Your task to perform on an android device: Open display settings Image 0: 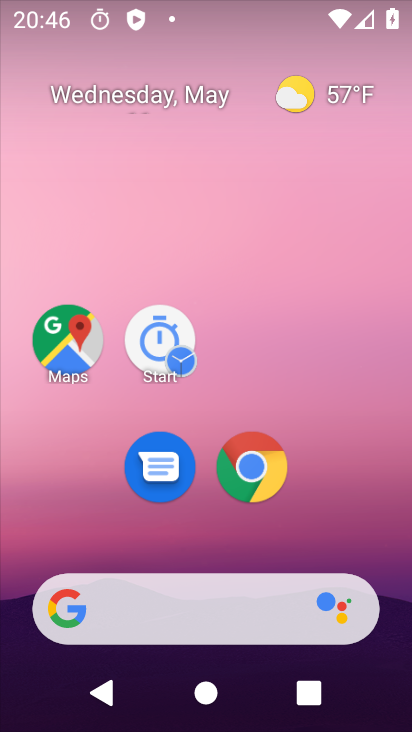
Step 0: drag from (365, 668) to (112, 0)
Your task to perform on an android device: Open display settings Image 1: 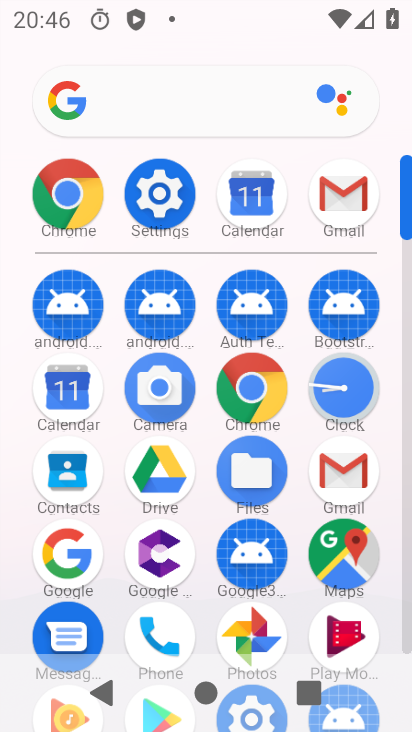
Step 1: click (171, 187)
Your task to perform on an android device: Open display settings Image 2: 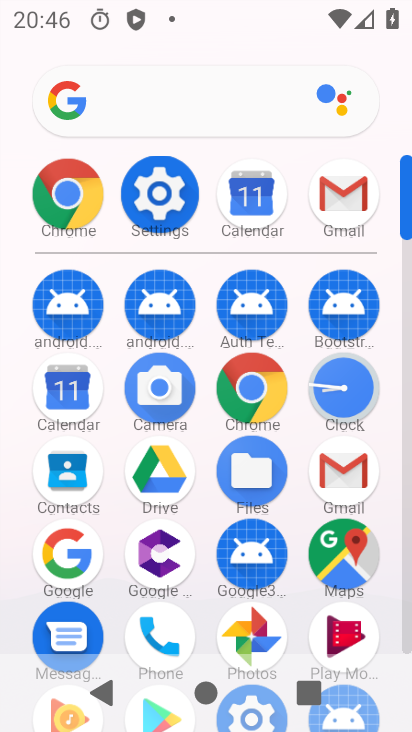
Step 2: click (168, 190)
Your task to perform on an android device: Open display settings Image 3: 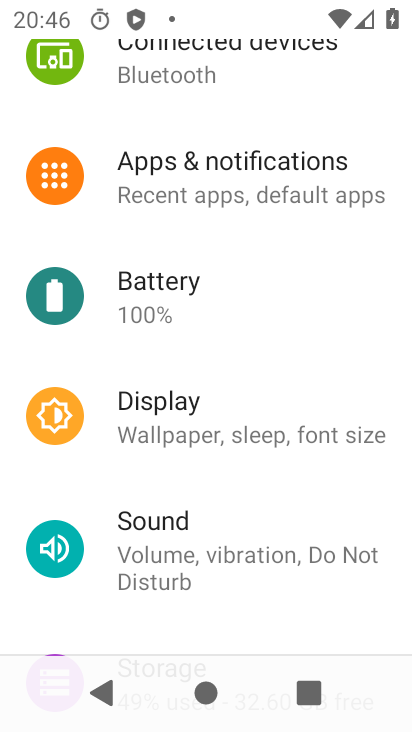
Step 3: click (168, 190)
Your task to perform on an android device: Open display settings Image 4: 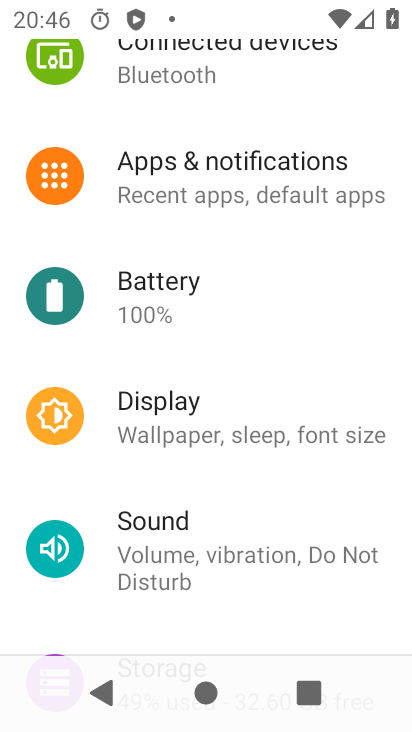
Step 4: click (168, 191)
Your task to perform on an android device: Open display settings Image 5: 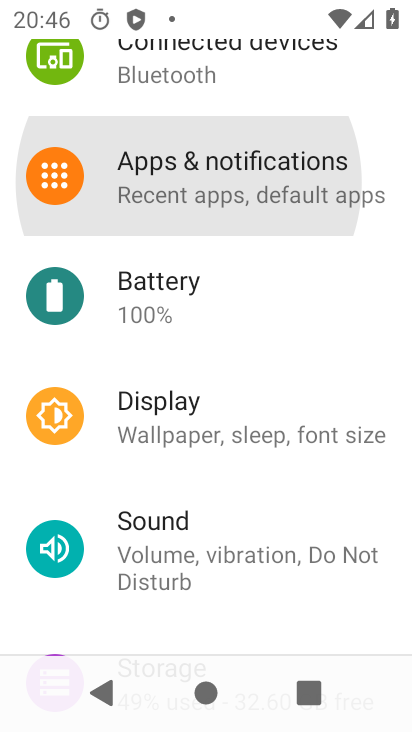
Step 5: click (168, 191)
Your task to perform on an android device: Open display settings Image 6: 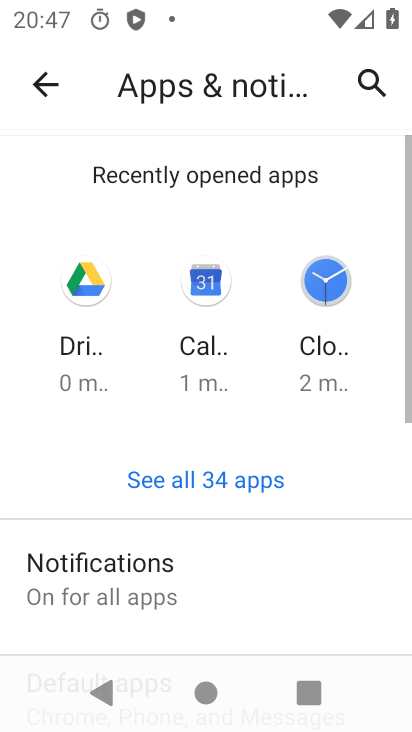
Step 6: click (31, 85)
Your task to perform on an android device: Open display settings Image 7: 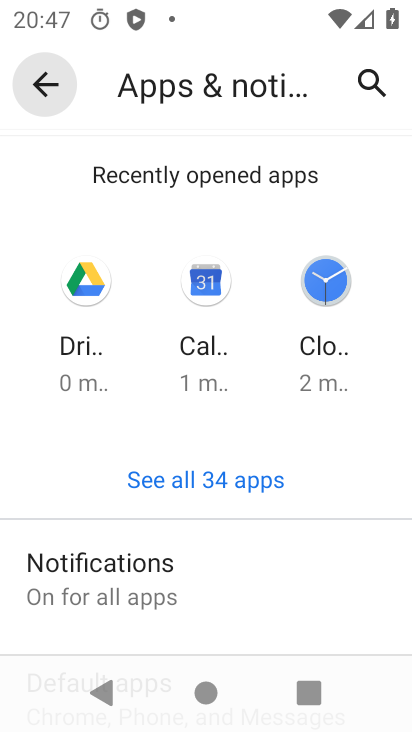
Step 7: click (36, 83)
Your task to perform on an android device: Open display settings Image 8: 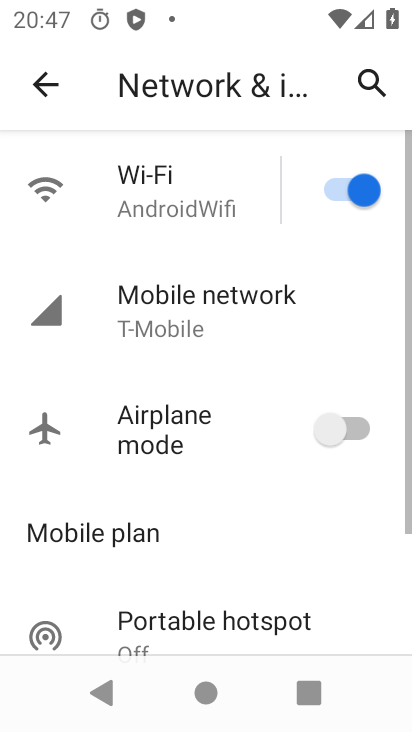
Step 8: drag from (224, 177) to (296, 678)
Your task to perform on an android device: Open display settings Image 9: 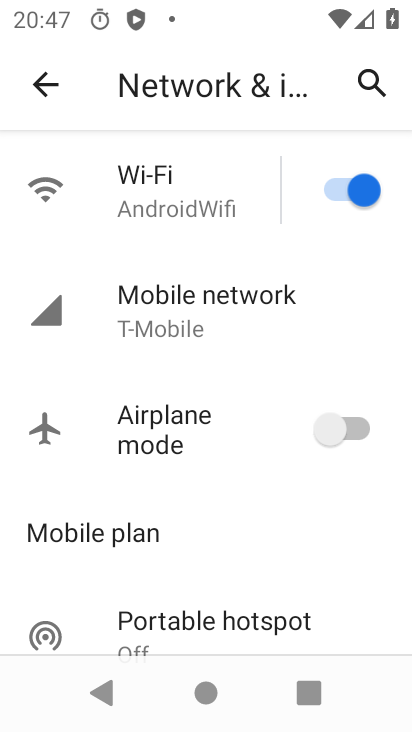
Step 9: click (41, 85)
Your task to perform on an android device: Open display settings Image 10: 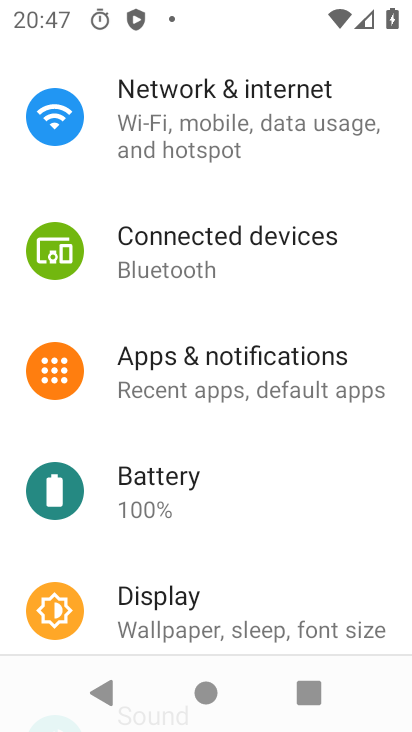
Step 10: click (160, 622)
Your task to perform on an android device: Open display settings Image 11: 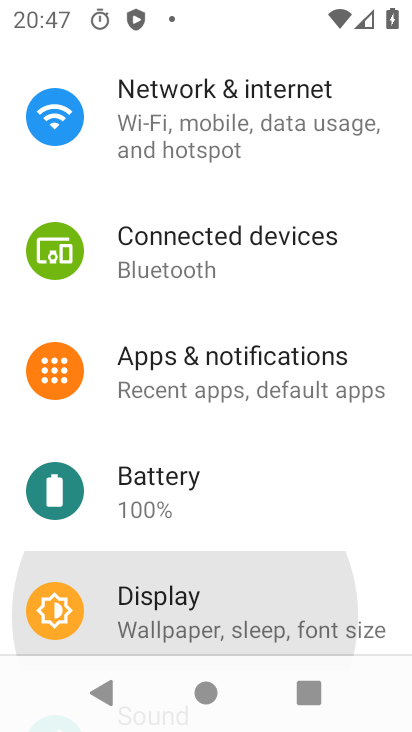
Step 11: click (159, 621)
Your task to perform on an android device: Open display settings Image 12: 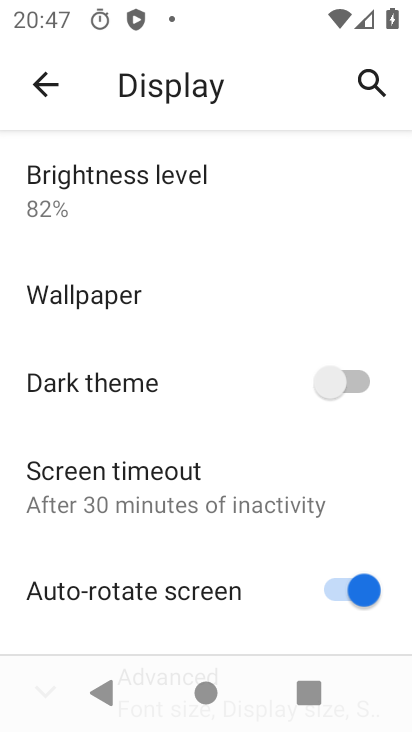
Step 12: task complete